Your task to perform on an android device: make emails show in primary in the gmail app Image 0: 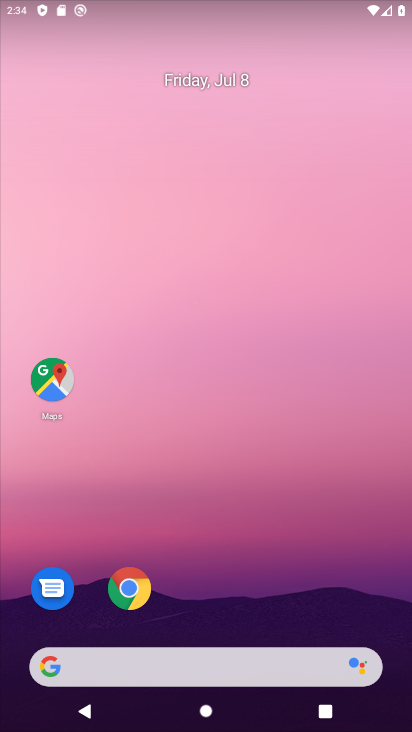
Step 0: drag from (204, 534) to (123, 37)
Your task to perform on an android device: make emails show in primary in the gmail app Image 1: 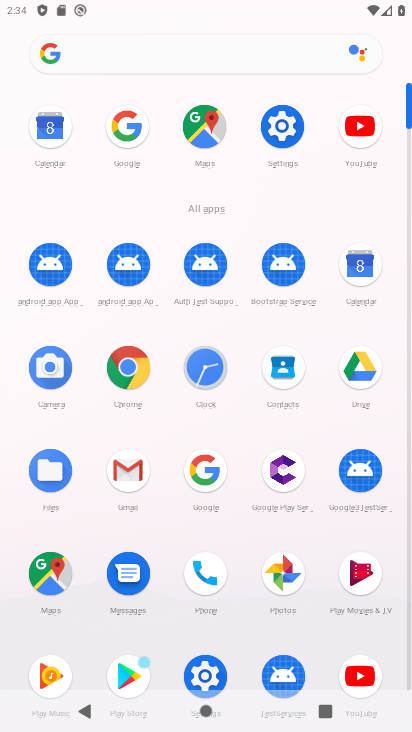
Step 1: click (126, 479)
Your task to perform on an android device: make emails show in primary in the gmail app Image 2: 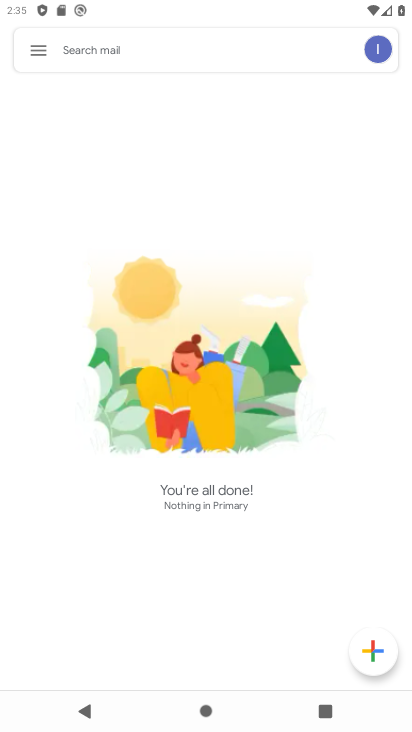
Step 2: click (39, 51)
Your task to perform on an android device: make emails show in primary in the gmail app Image 3: 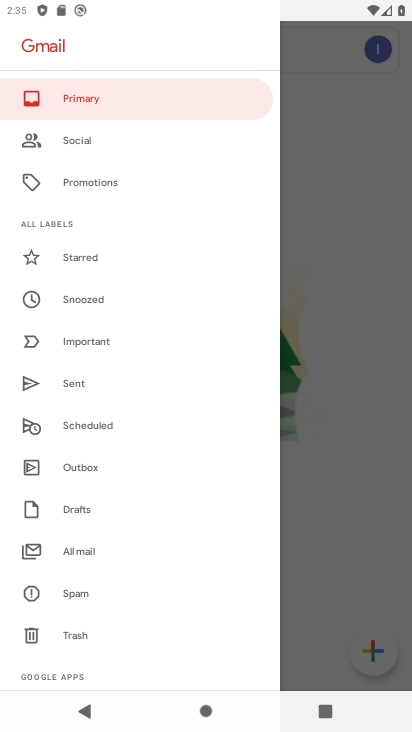
Step 3: click (93, 402)
Your task to perform on an android device: make emails show in primary in the gmail app Image 4: 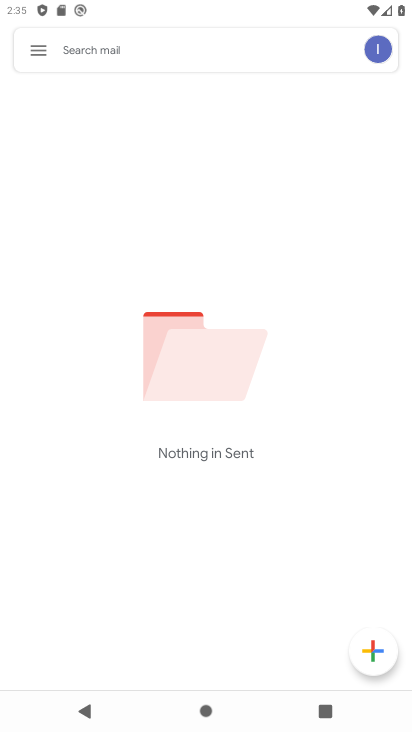
Step 4: click (35, 52)
Your task to perform on an android device: make emails show in primary in the gmail app Image 5: 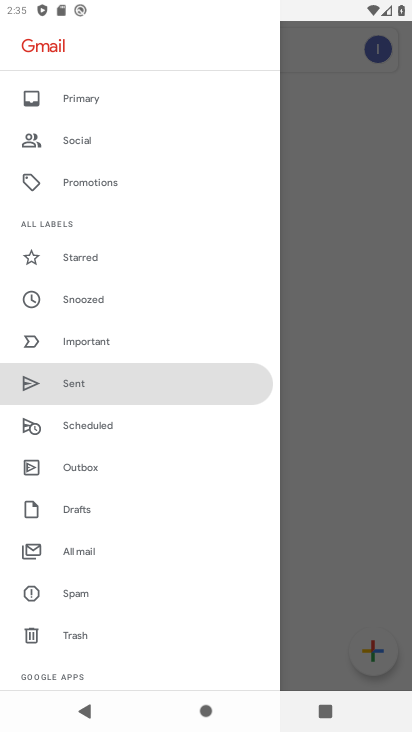
Step 5: drag from (71, 635) to (101, 291)
Your task to perform on an android device: make emails show in primary in the gmail app Image 6: 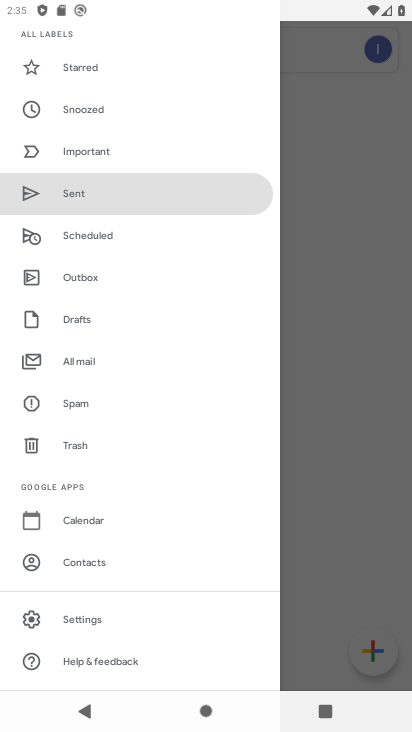
Step 6: click (87, 628)
Your task to perform on an android device: make emails show in primary in the gmail app Image 7: 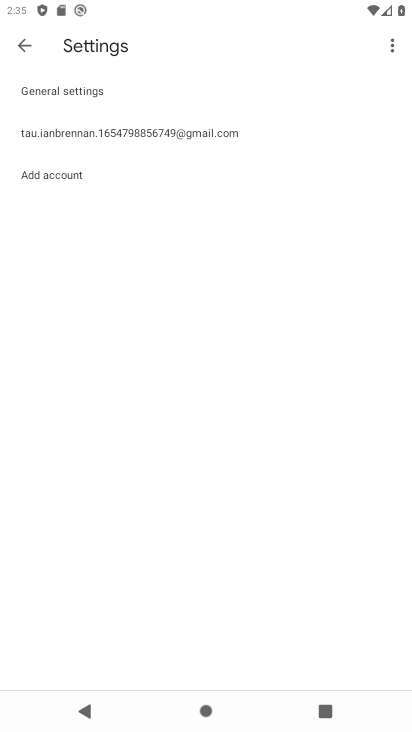
Step 7: click (105, 131)
Your task to perform on an android device: make emails show in primary in the gmail app Image 8: 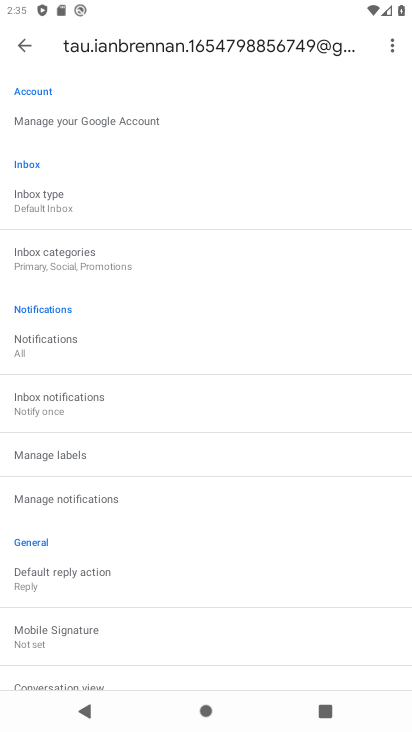
Step 8: click (53, 263)
Your task to perform on an android device: make emails show in primary in the gmail app Image 9: 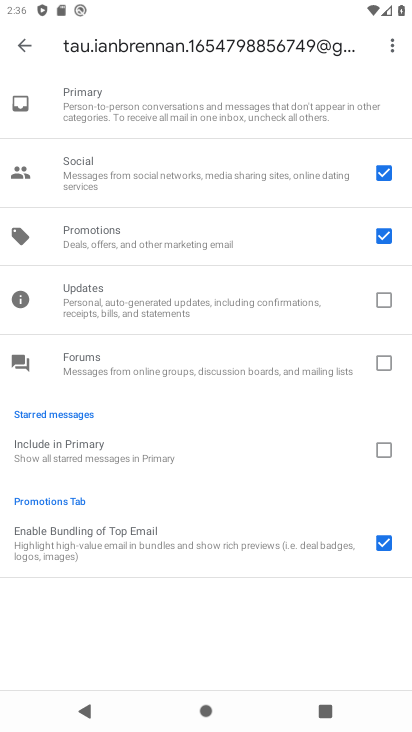
Step 9: click (380, 238)
Your task to perform on an android device: make emails show in primary in the gmail app Image 10: 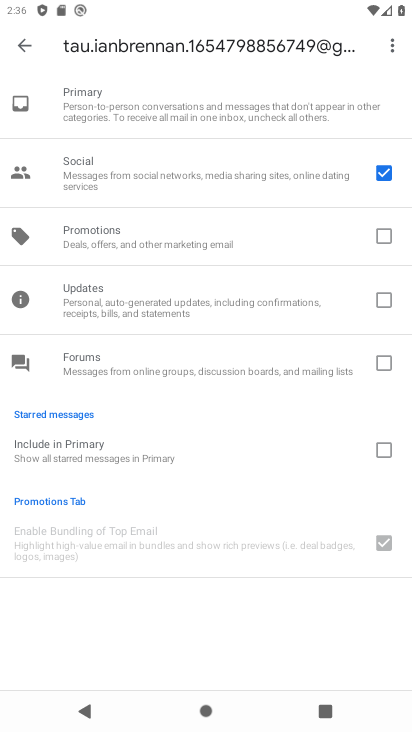
Step 10: click (375, 169)
Your task to perform on an android device: make emails show in primary in the gmail app Image 11: 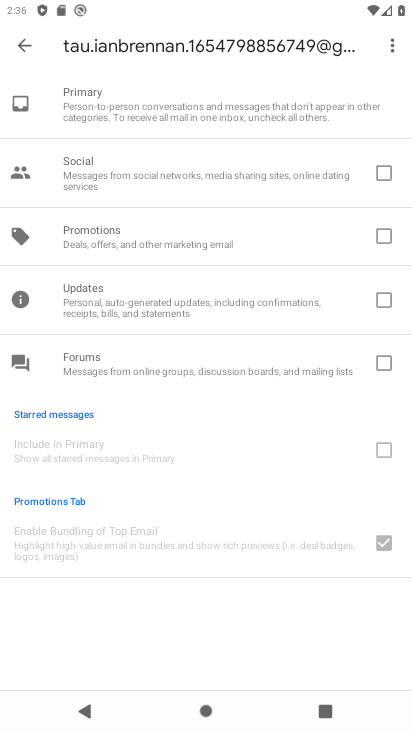
Step 11: task complete